Your task to perform on an android device: Search for the best-rated coffee table on Crate & Barrel Image 0: 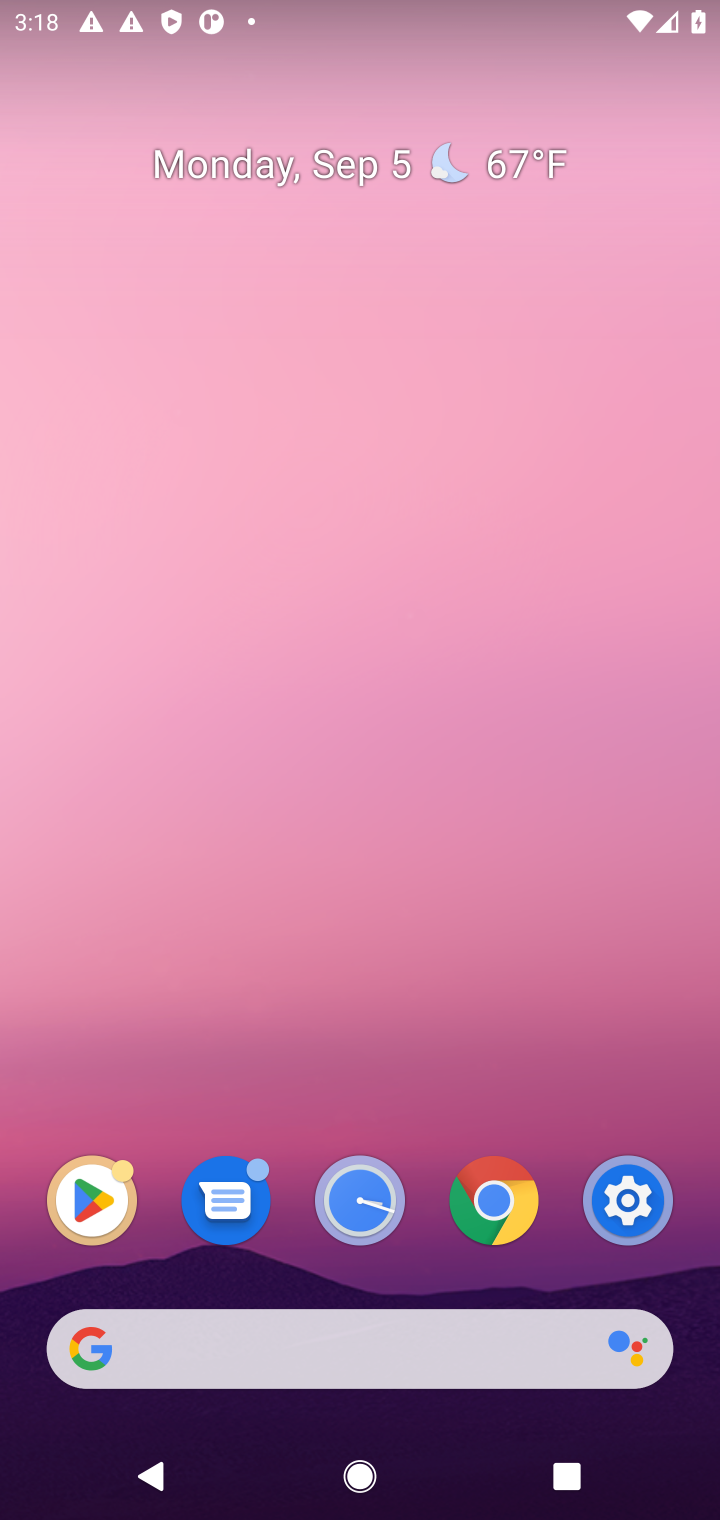
Step 0: click (336, 1332)
Your task to perform on an android device: Search for the best-rated coffee table on Crate & Barrel Image 1: 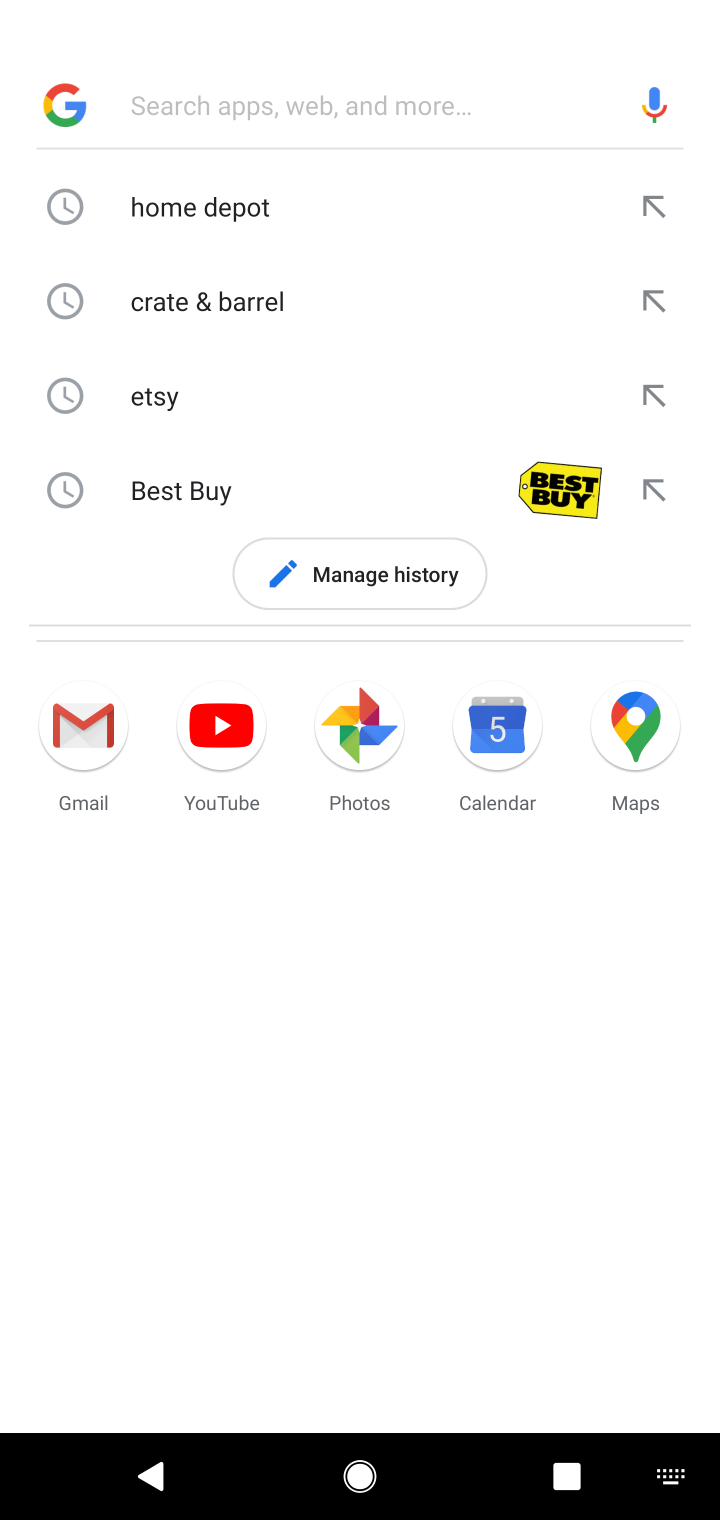
Step 1: click (187, 290)
Your task to perform on an android device: Search for the best-rated coffee table on Crate & Barrel Image 2: 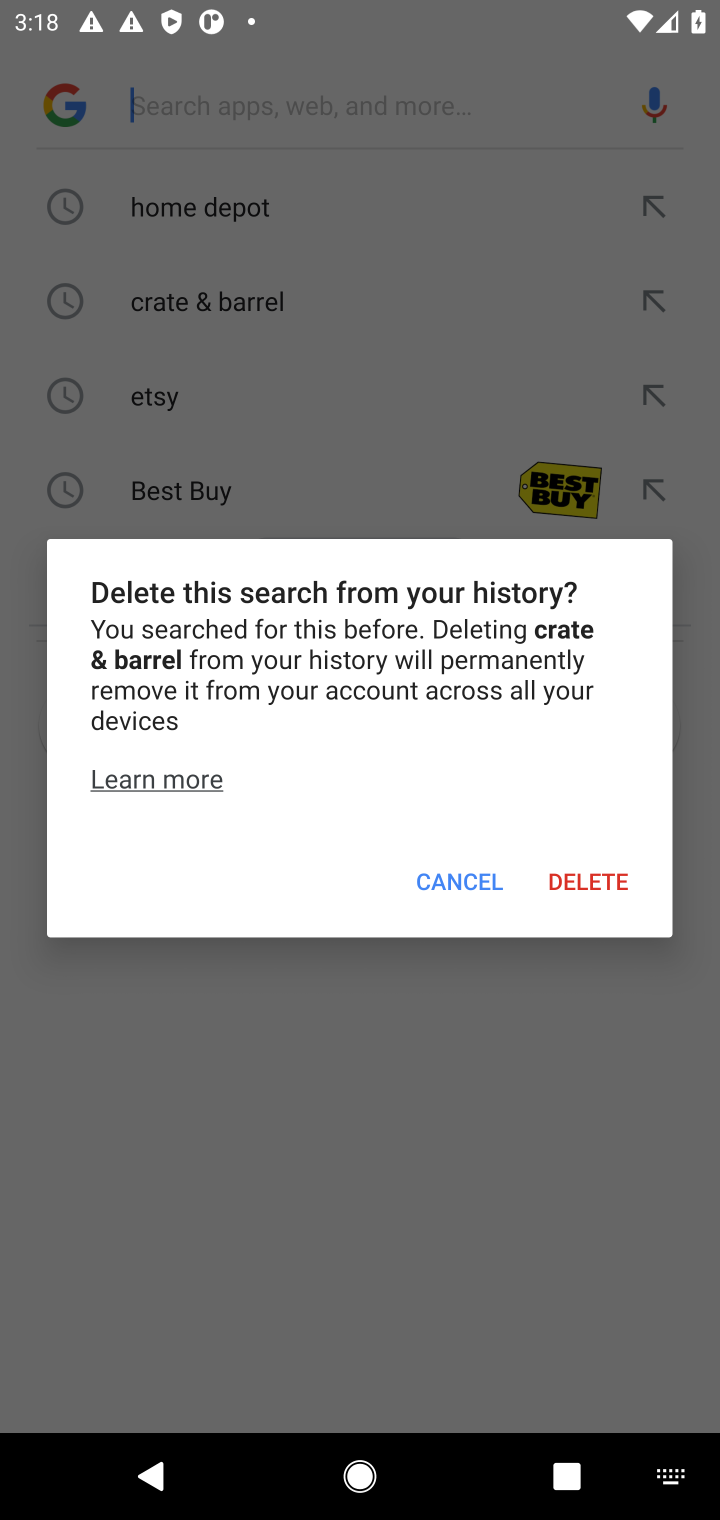
Step 2: click (481, 875)
Your task to perform on an android device: Search for the best-rated coffee table on Crate & Barrel Image 3: 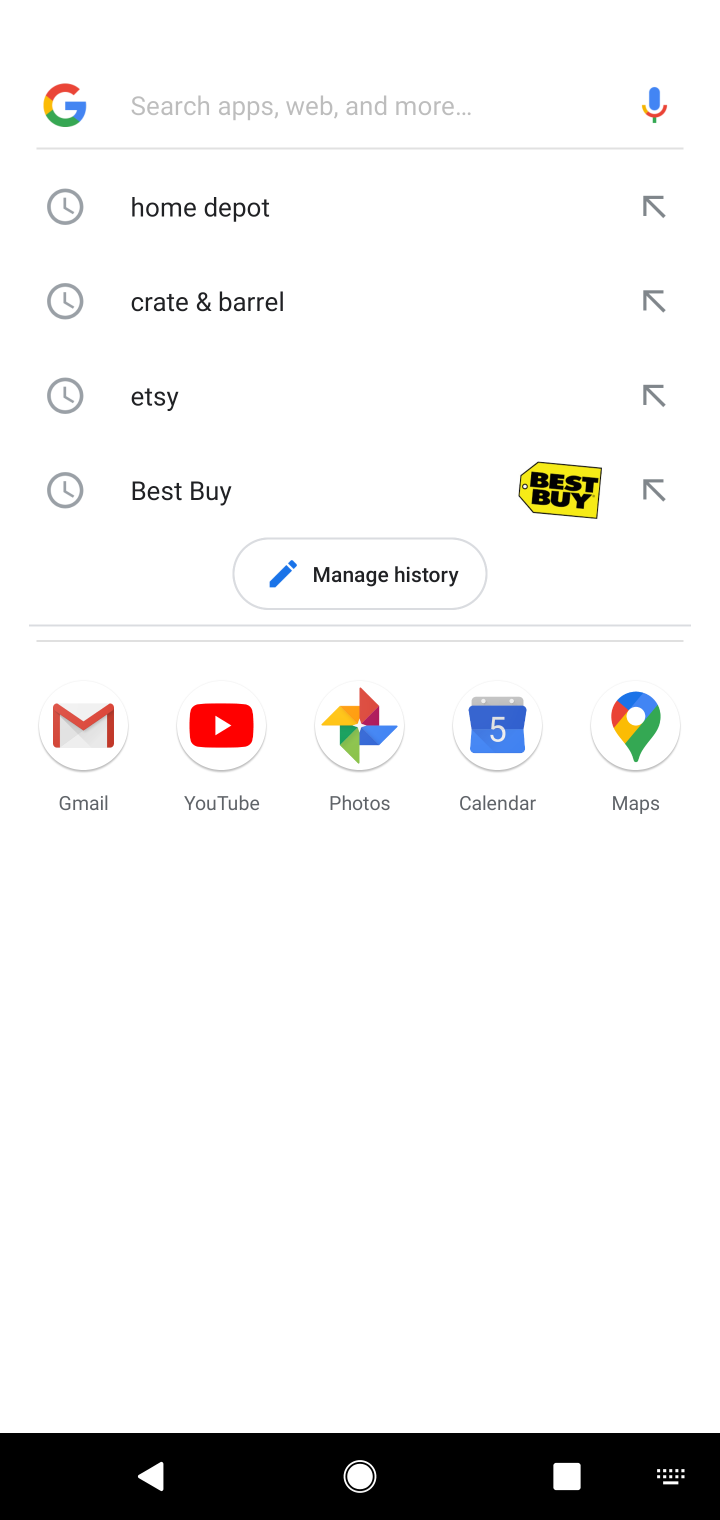
Step 3: click (389, 291)
Your task to perform on an android device: Search for the best-rated coffee table on Crate & Barrel Image 4: 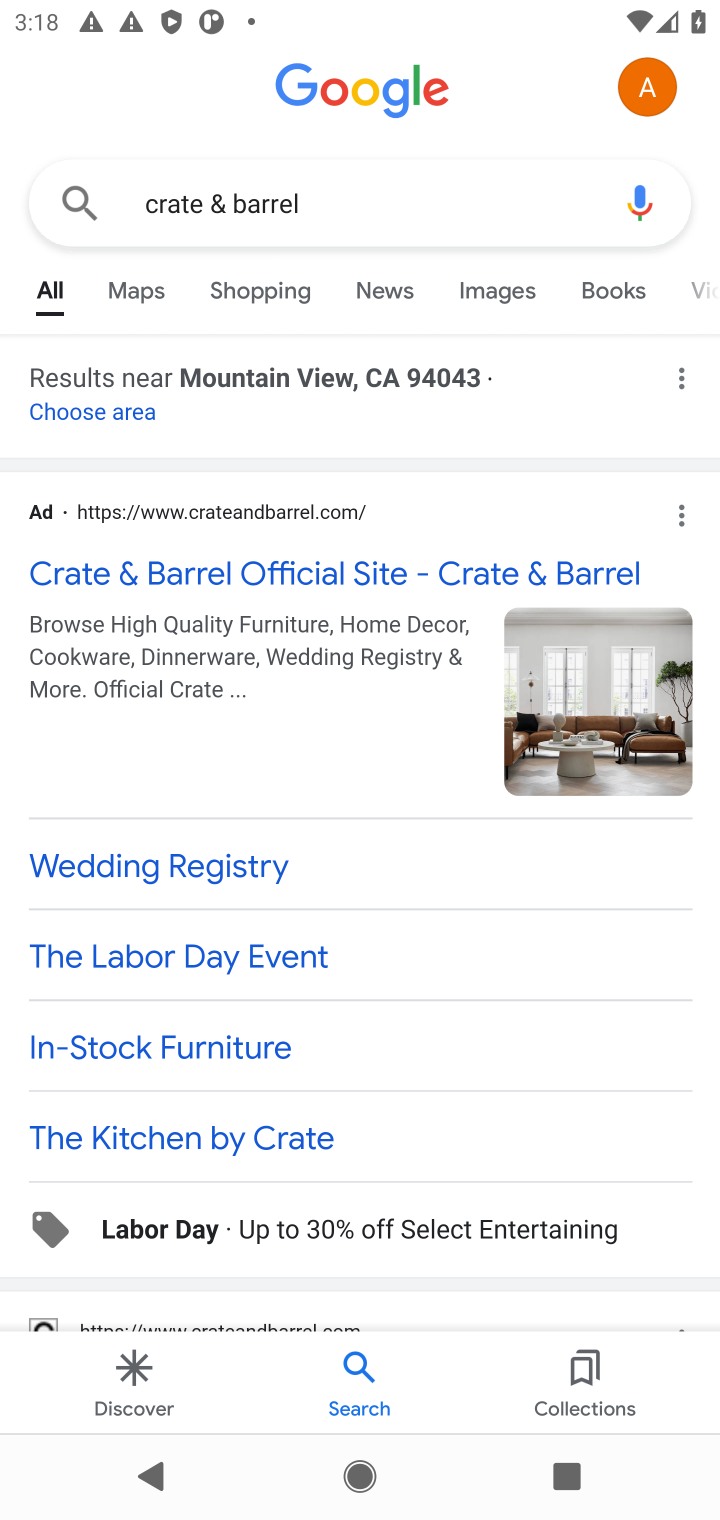
Step 4: click (279, 557)
Your task to perform on an android device: Search for the best-rated coffee table on Crate & Barrel Image 5: 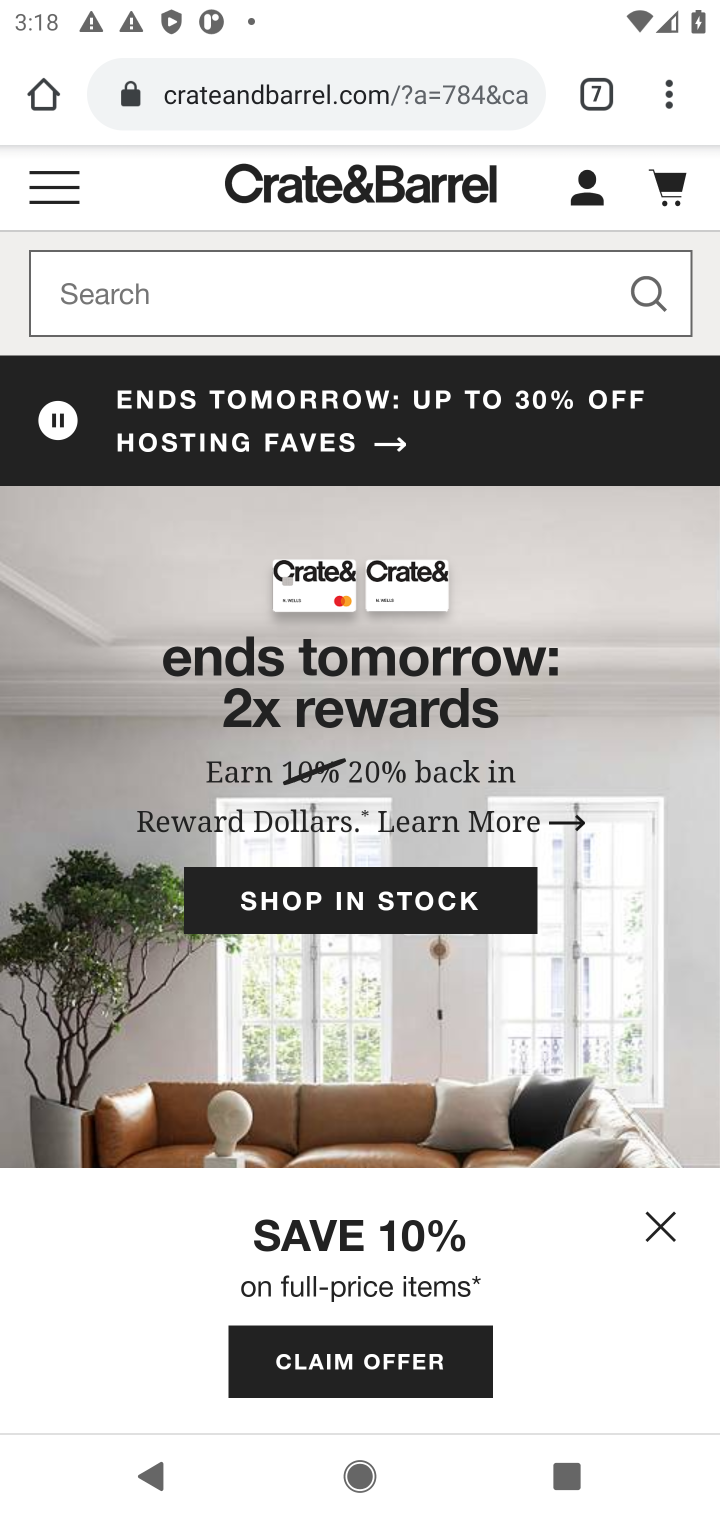
Step 5: click (246, 280)
Your task to perform on an android device: Search for the best-rated coffee table on Crate & Barrel Image 6: 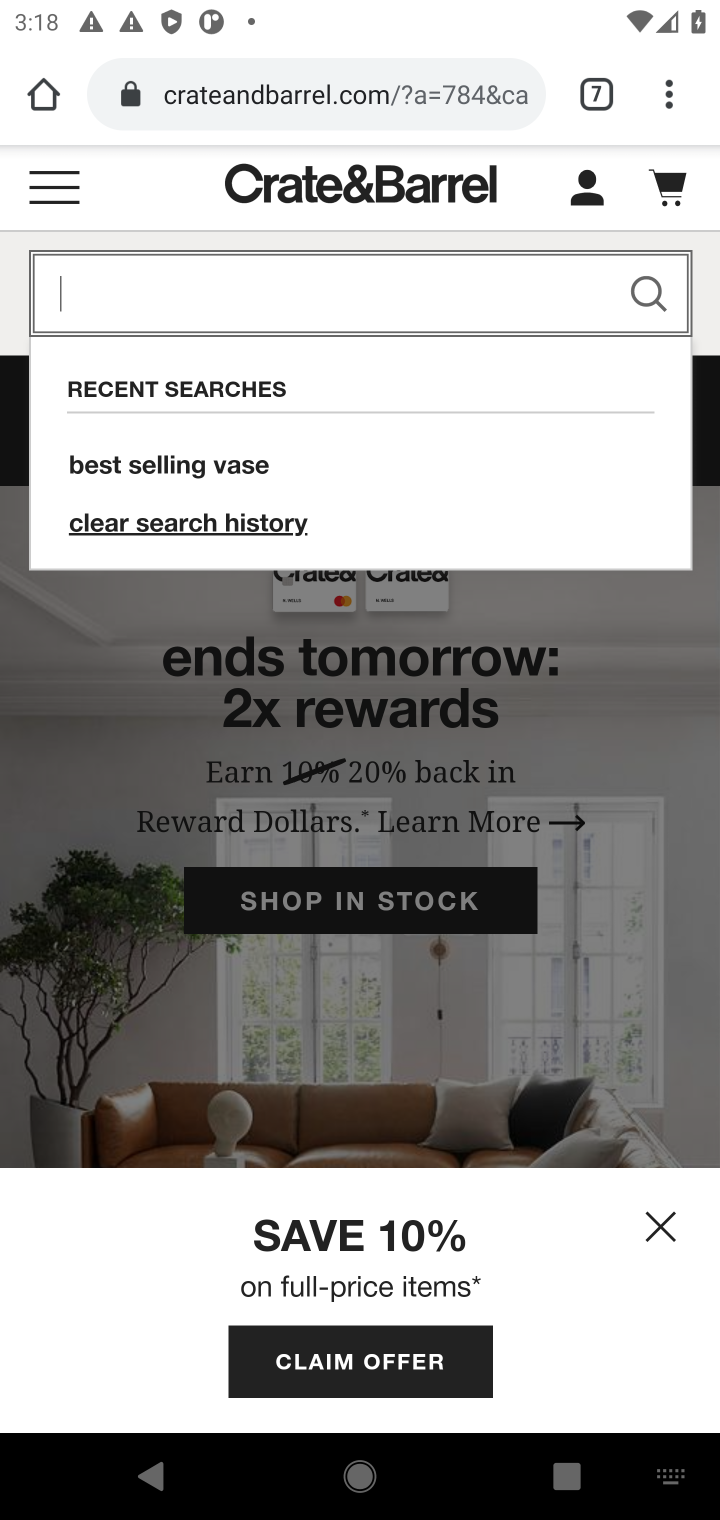
Step 6: type "best-rated coffee table"
Your task to perform on an android device: Search for the best-rated coffee table on Crate & Barrel Image 7: 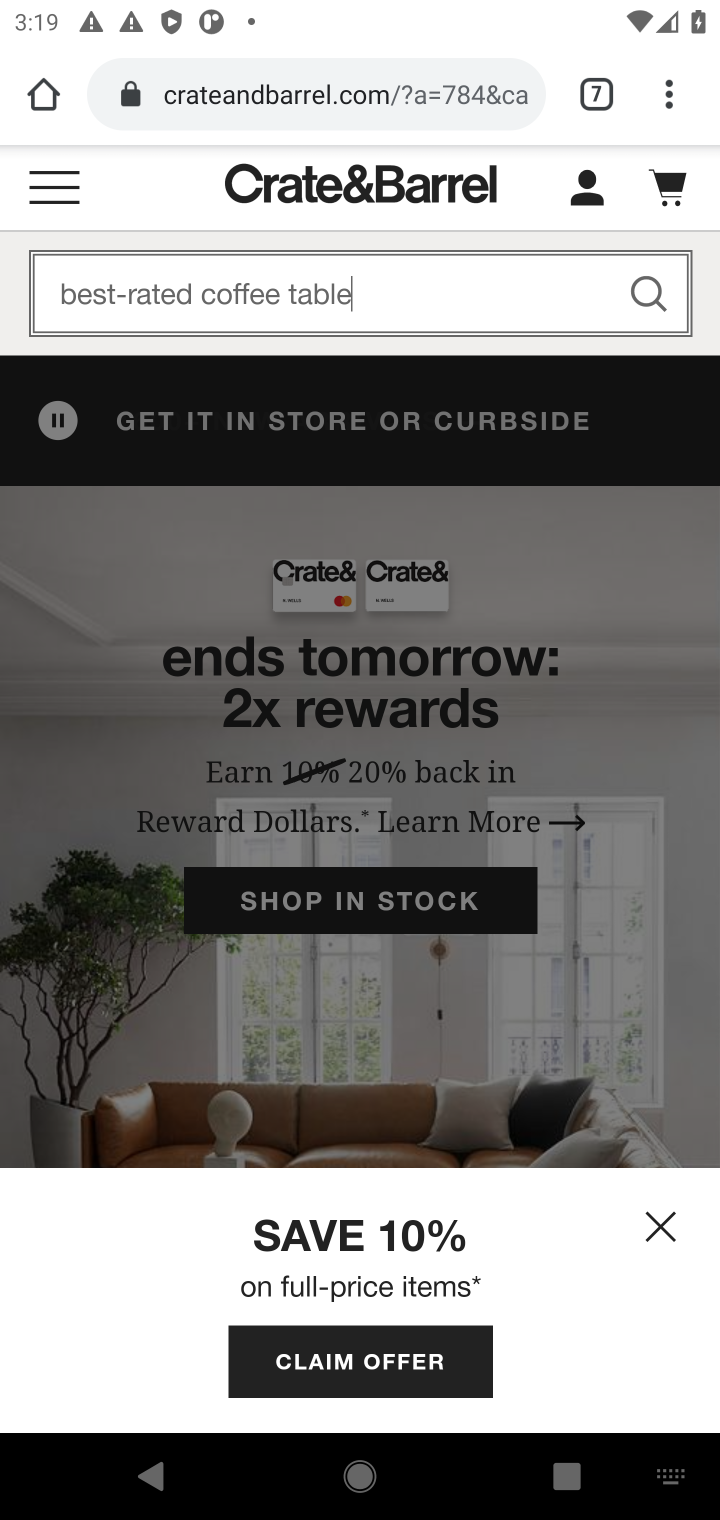
Step 7: click (651, 287)
Your task to perform on an android device: Search for the best-rated coffee table on Crate & Barrel Image 8: 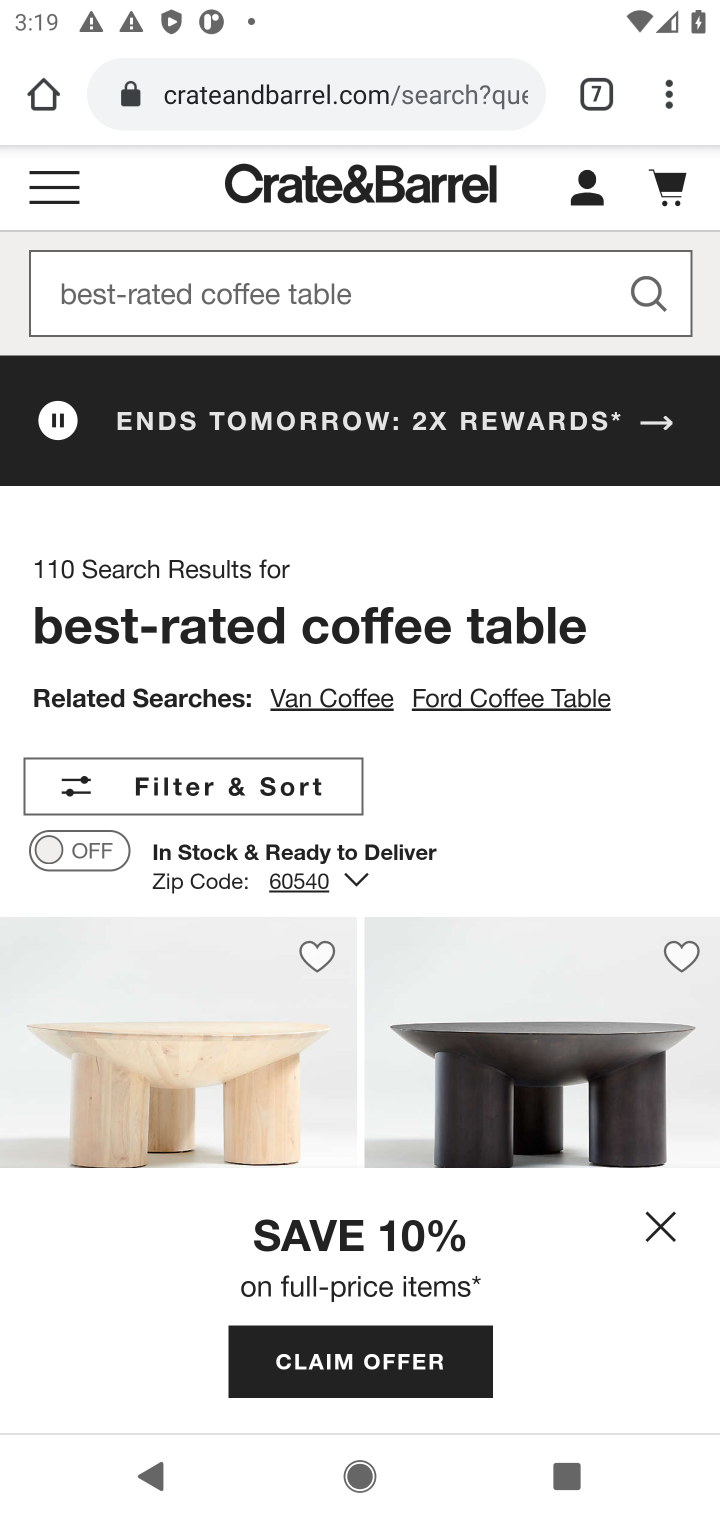
Step 8: task complete